Your task to perform on an android device: Open internet settings Image 0: 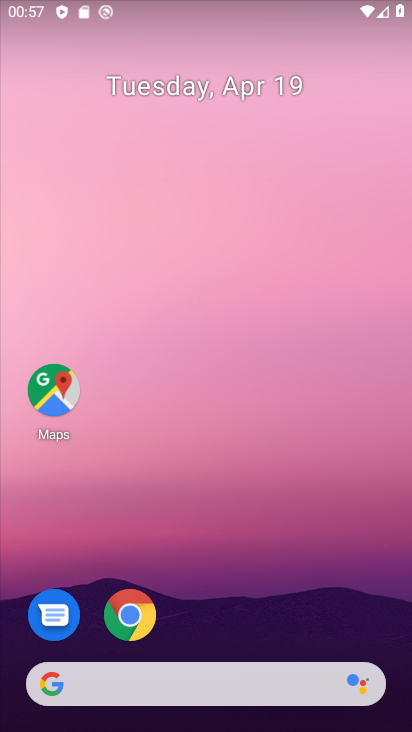
Step 0: drag from (269, 601) to (267, 288)
Your task to perform on an android device: Open internet settings Image 1: 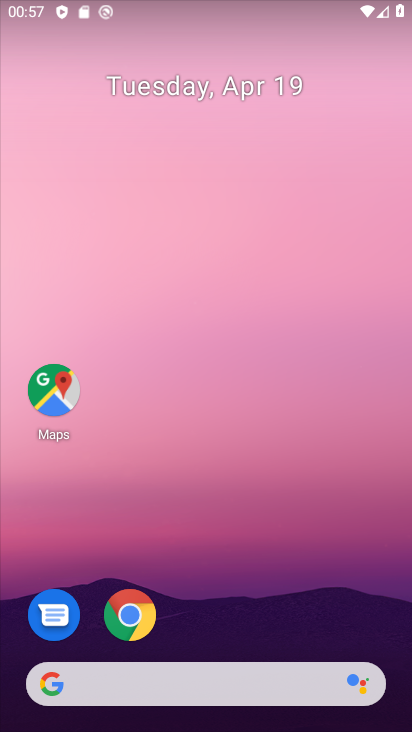
Step 1: drag from (273, 612) to (288, 156)
Your task to perform on an android device: Open internet settings Image 2: 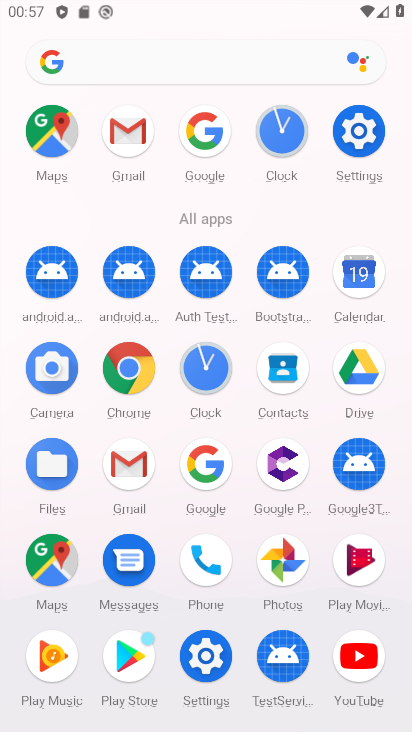
Step 2: click (360, 155)
Your task to perform on an android device: Open internet settings Image 3: 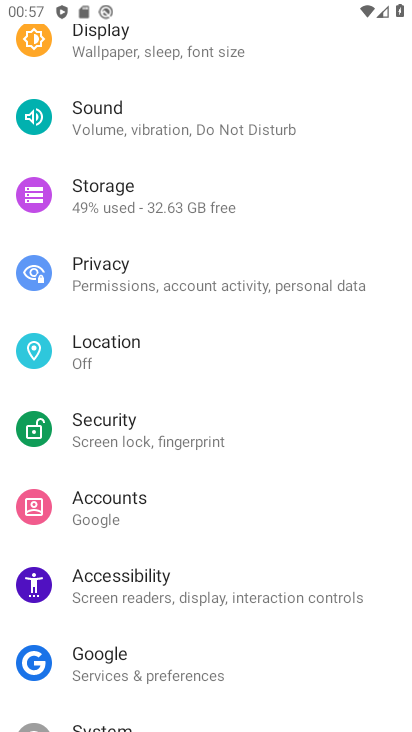
Step 3: drag from (198, 104) to (211, 535)
Your task to perform on an android device: Open internet settings Image 4: 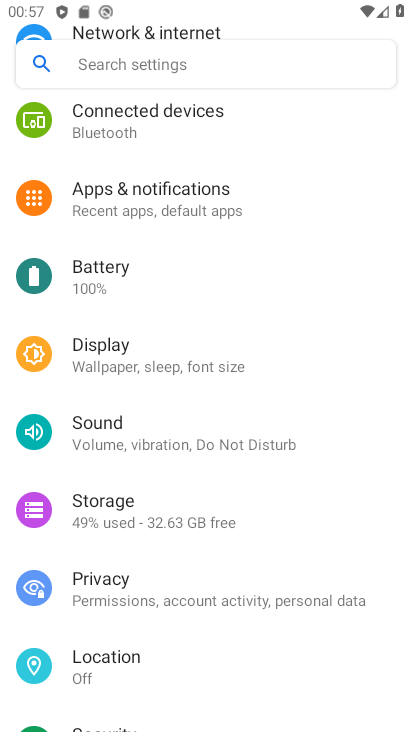
Step 4: drag from (197, 196) to (217, 574)
Your task to perform on an android device: Open internet settings Image 5: 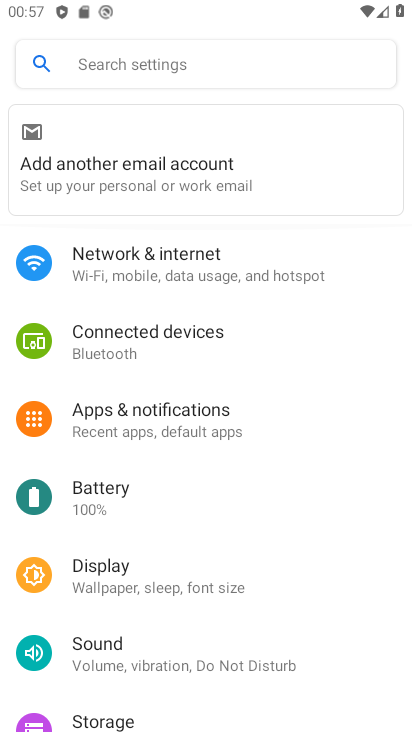
Step 5: click (190, 268)
Your task to perform on an android device: Open internet settings Image 6: 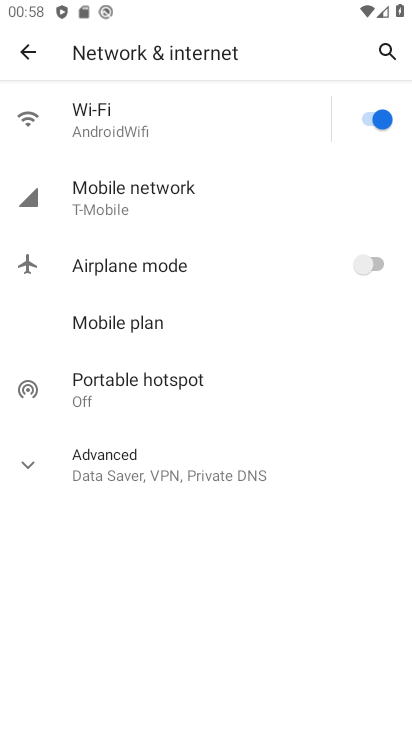
Step 6: task complete